Your task to perform on an android device: set default search engine in the chrome app Image 0: 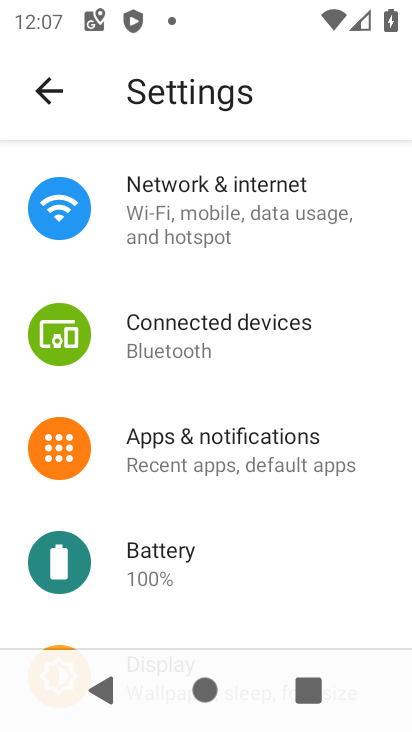
Step 0: press home button
Your task to perform on an android device: set default search engine in the chrome app Image 1: 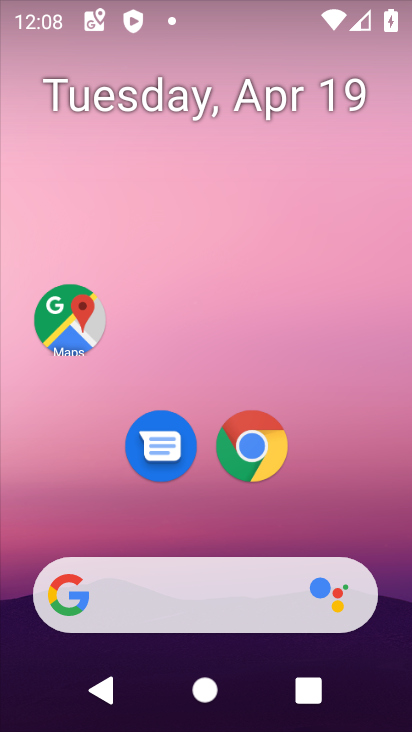
Step 1: click (257, 447)
Your task to perform on an android device: set default search engine in the chrome app Image 2: 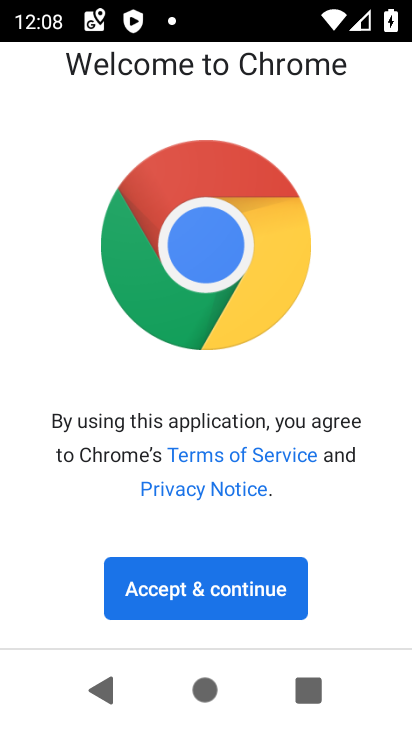
Step 2: click (246, 584)
Your task to perform on an android device: set default search engine in the chrome app Image 3: 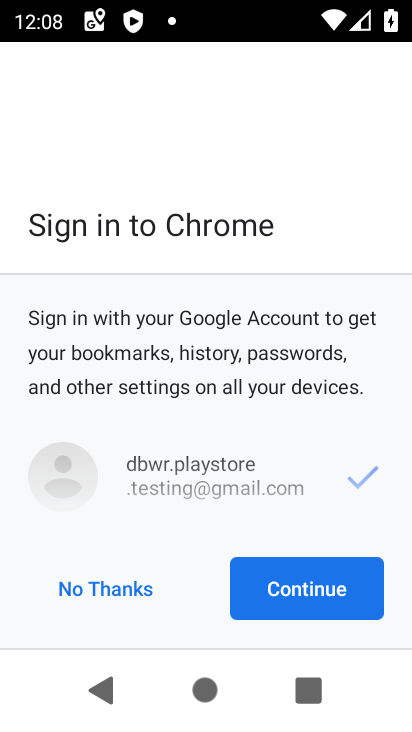
Step 3: click (252, 584)
Your task to perform on an android device: set default search engine in the chrome app Image 4: 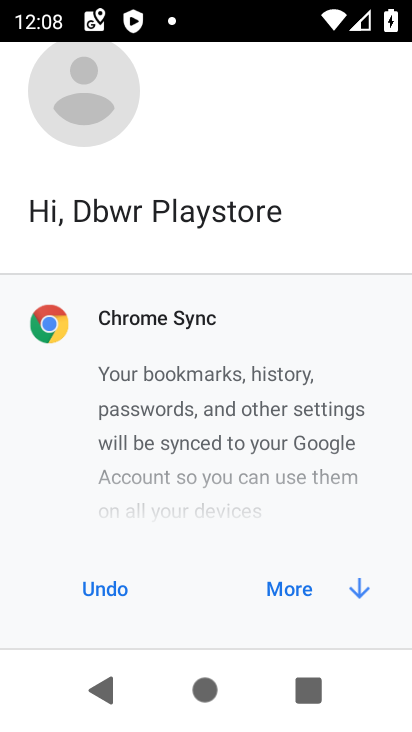
Step 4: click (298, 594)
Your task to perform on an android device: set default search engine in the chrome app Image 5: 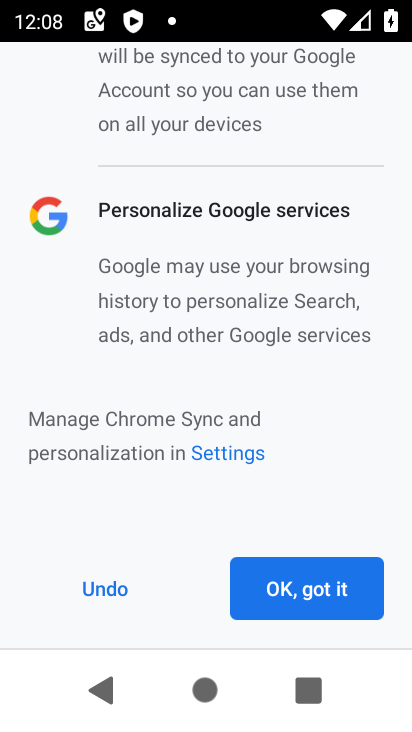
Step 5: click (293, 585)
Your task to perform on an android device: set default search engine in the chrome app Image 6: 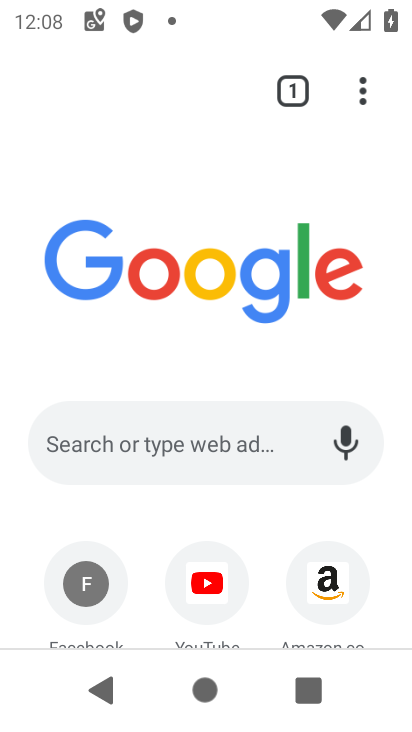
Step 6: click (362, 86)
Your task to perform on an android device: set default search engine in the chrome app Image 7: 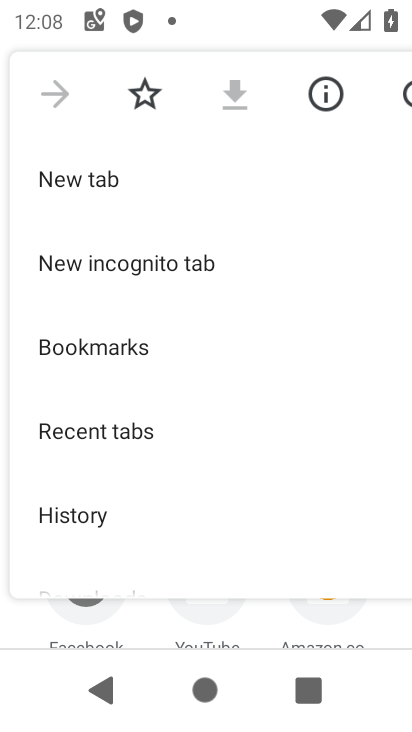
Step 7: drag from (208, 535) to (242, 210)
Your task to perform on an android device: set default search engine in the chrome app Image 8: 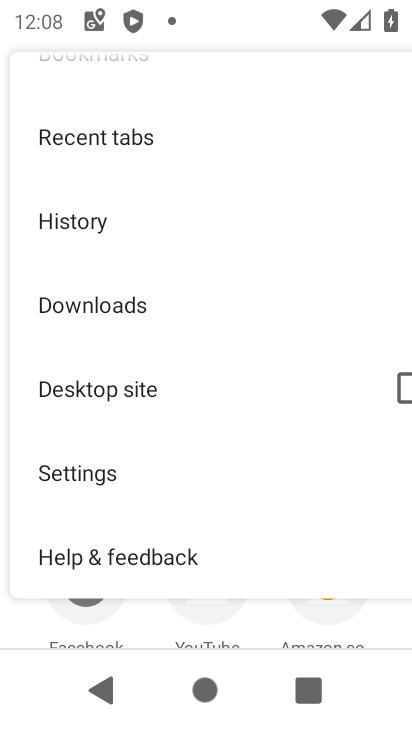
Step 8: click (103, 470)
Your task to perform on an android device: set default search engine in the chrome app Image 9: 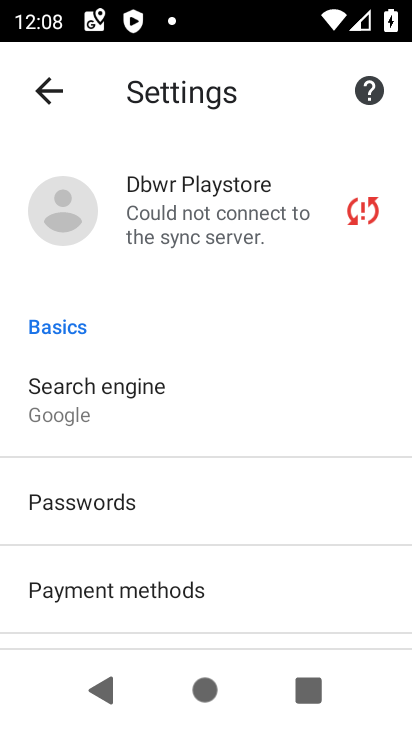
Step 9: click (111, 399)
Your task to perform on an android device: set default search engine in the chrome app Image 10: 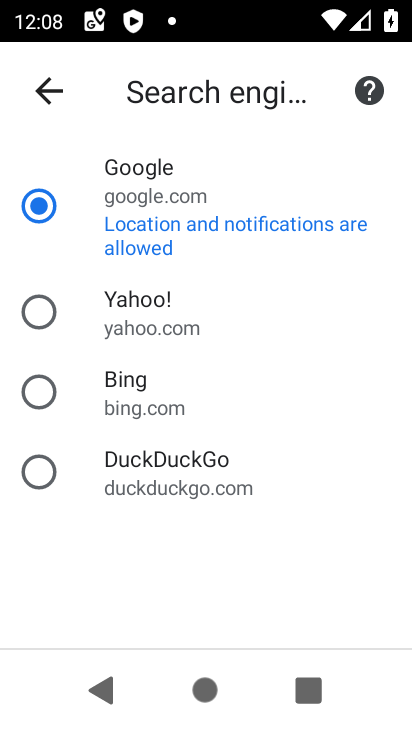
Step 10: task complete